Your task to perform on an android device: turn off smart reply in the gmail app Image 0: 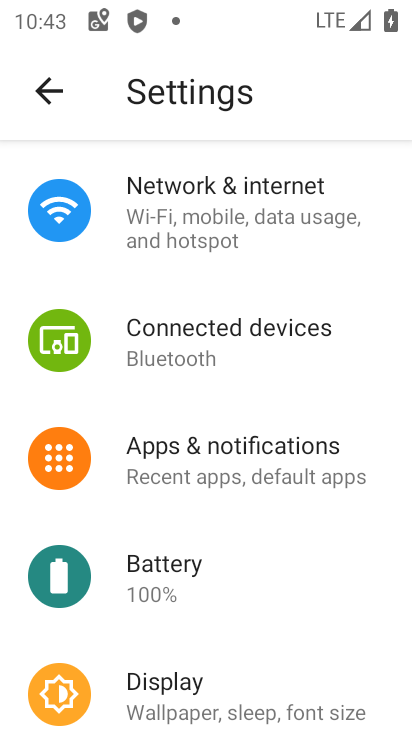
Step 0: press home button
Your task to perform on an android device: turn off smart reply in the gmail app Image 1: 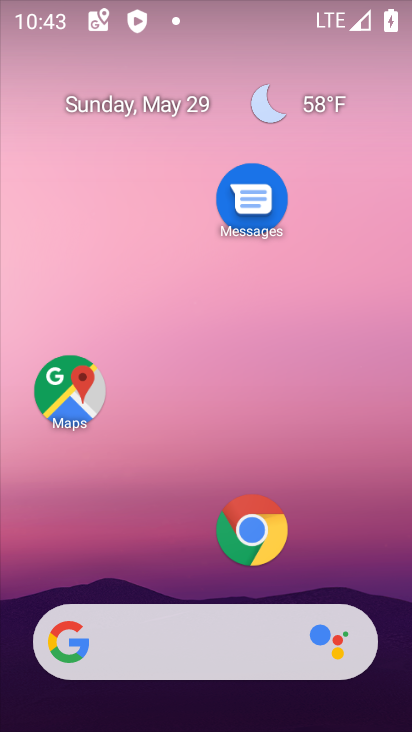
Step 1: drag from (145, 511) to (253, 97)
Your task to perform on an android device: turn off smart reply in the gmail app Image 2: 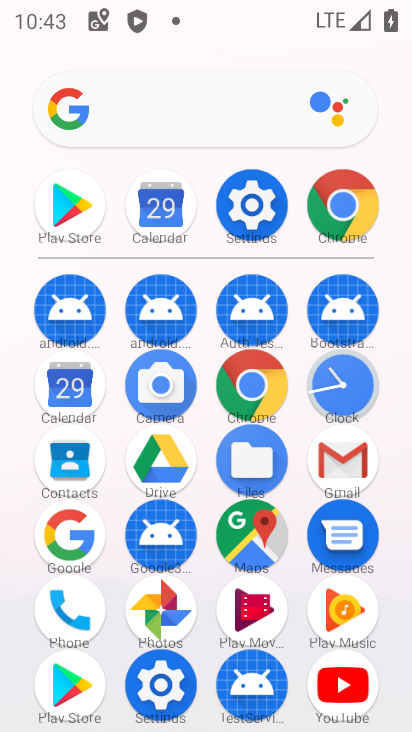
Step 2: click (355, 462)
Your task to perform on an android device: turn off smart reply in the gmail app Image 3: 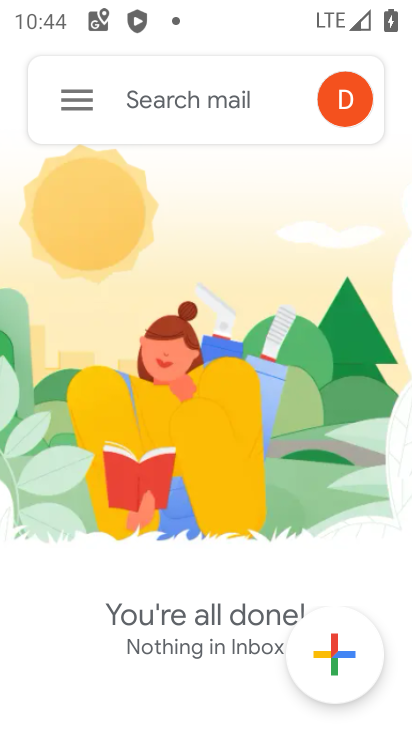
Step 3: click (79, 99)
Your task to perform on an android device: turn off smart reply in the gmail app Image 4: 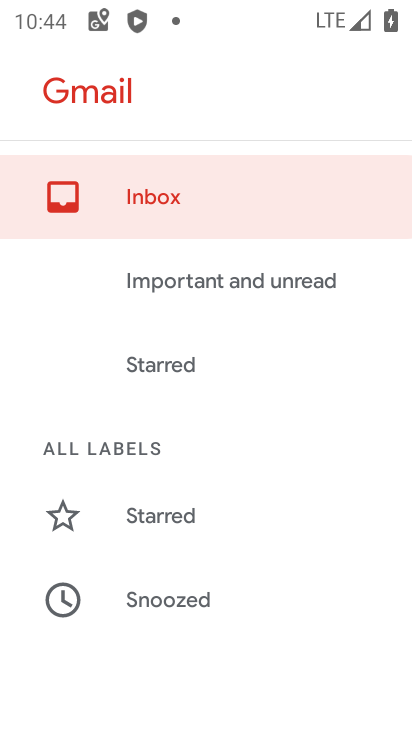
Step 4: drag from (128, 613) to (196, 21)
Your task to perform on an android device: turn off smart reply in the gmail app Image 5: 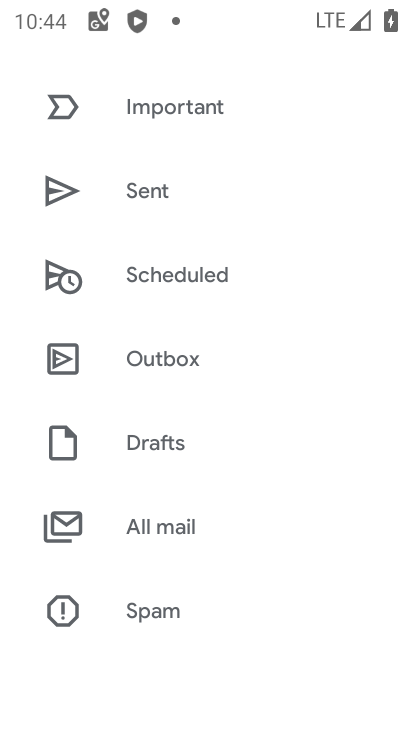
Step 5: drag from (164, 632) to (160, 96)
Your task to perform on an android device: turn off smart reply in the gmail app Image 6: 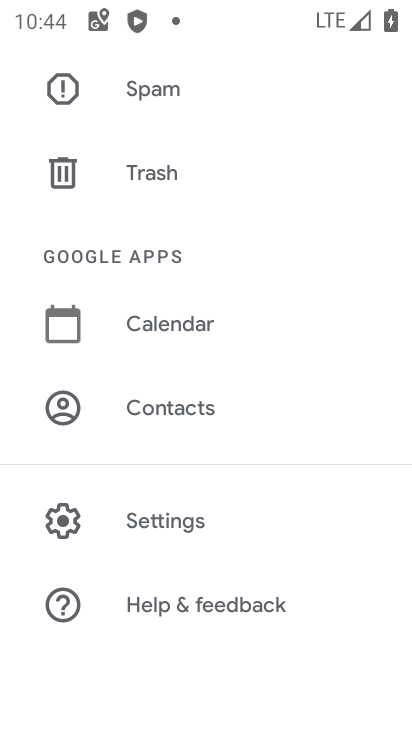
Step 6: click (144, 517)
Your task to perform on an android device: turn off smart reply in the gmail app Image 7: 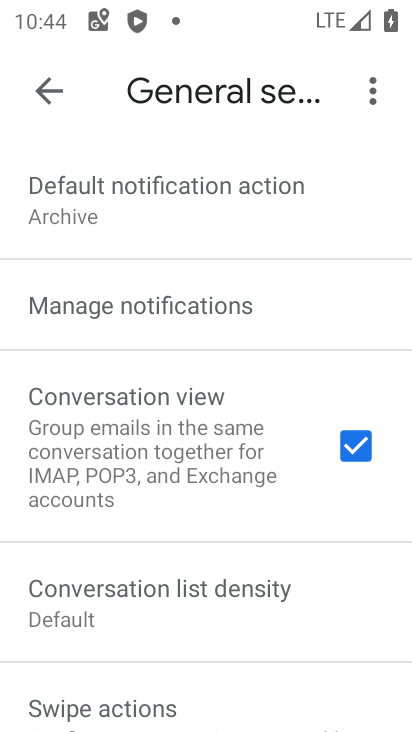
Step 7: click (38, 87)
Your task to perform on an android device: turn off smart reply in the gmail app Image 8: 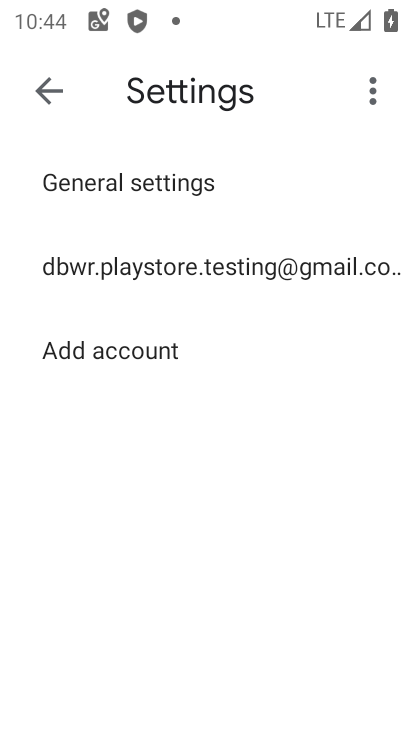
Step 8: click (127, 251)
Your task to perform on an android device: turn off smart reply in the gmail app Image 9: 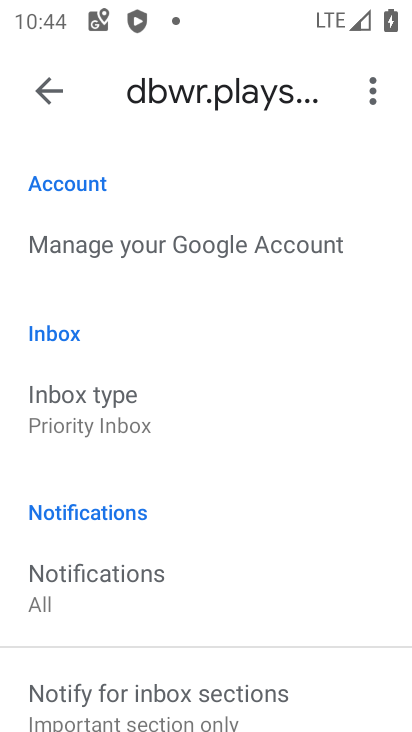
Step 9: drag from (108, 565) to (168, 153)
Your task to perform on an android device: turn off smart reply in the gmail app Image 10: 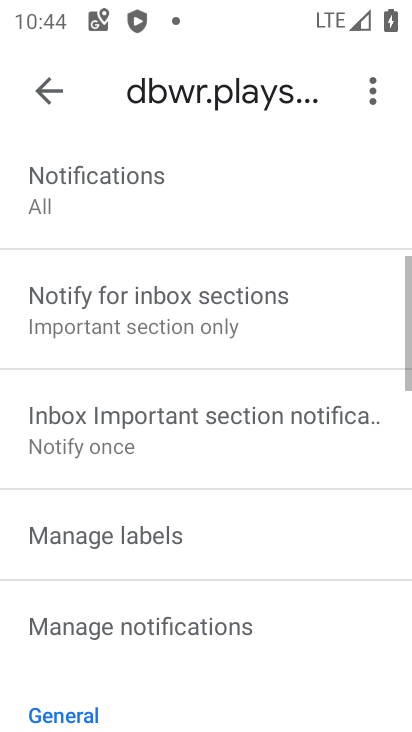
Step 10: drag from (256, 629) to (254, 142)
Your task to perform on an android device: turn off smart reply in the gmail app Image 11: 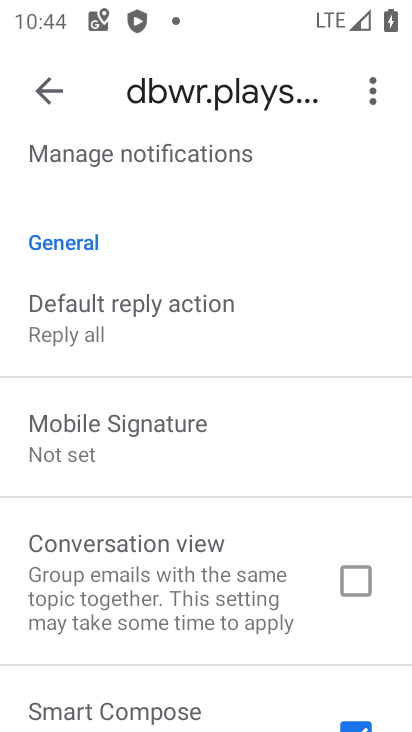
Step 11: drag from (168, 571) to (213, 83)
Your task to perform on an android device: turn off smart reply in the gmail app Image 12: 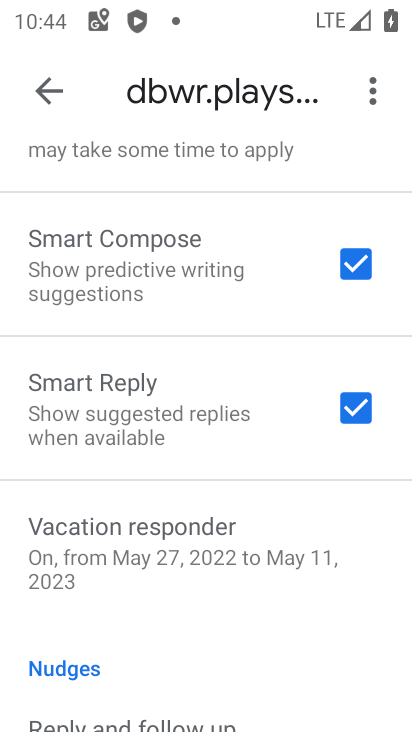
Step 12: click (334, 422)
Your task to perform on an android device: turn off smart reply in the gmail app Image 13: 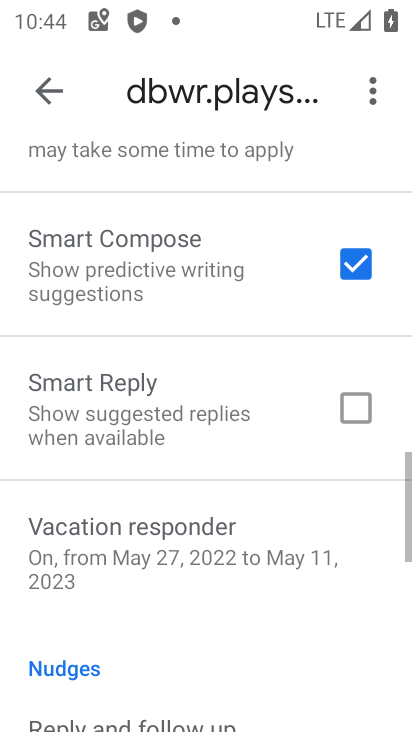
Step 13: task complete